Your task to perform on an android device: Go to Google maps Image 0: 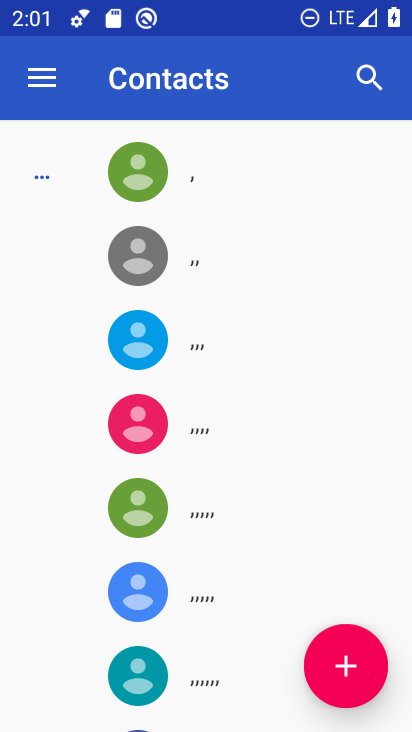
Step 0: press home button
Your task to perform on an android device: Go to Google maps Image 1: 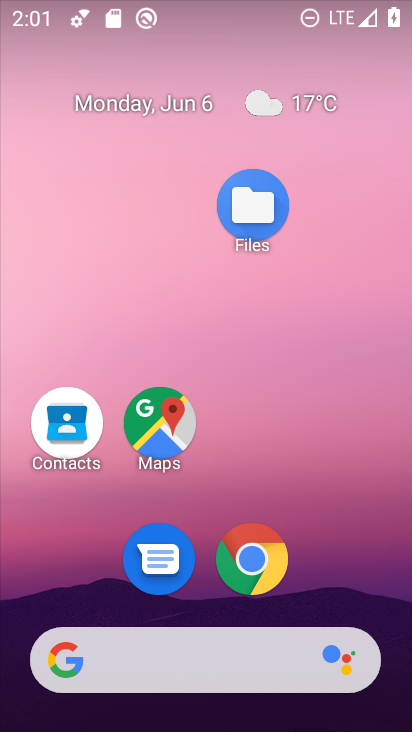
Step 1: drag from (198, 656) to (234, 188)
Your task to perform on an android device: Go to Google maps Image 2: 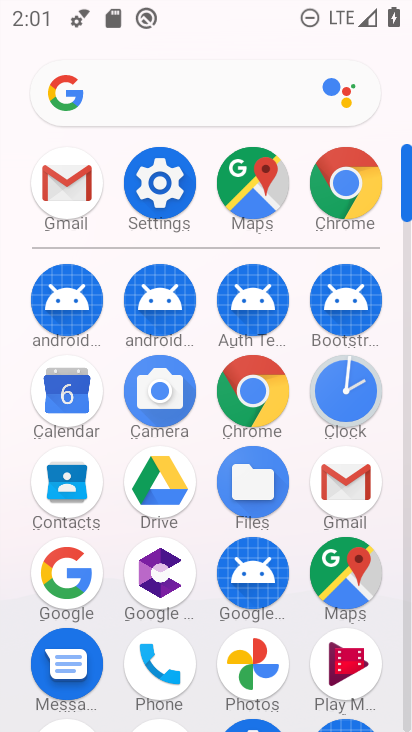
Step 2: click (353, 581)
Your task to perform on an android device: Go to Google maps Image 3: 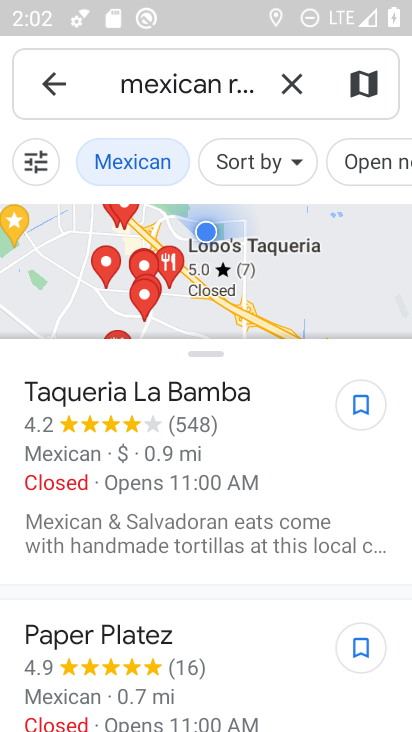
Step 3: task complete